Your task to perform on an android device: Toggle the flashlight Image 0: 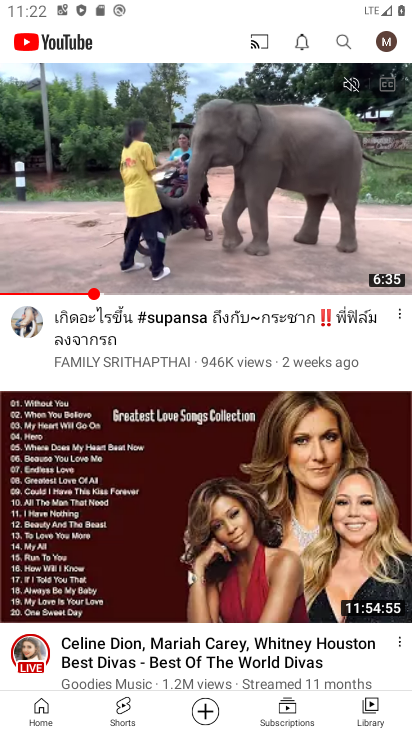
Step 0: press home button
Your task to perform on an android device: Toggle the flashlight Image 1: 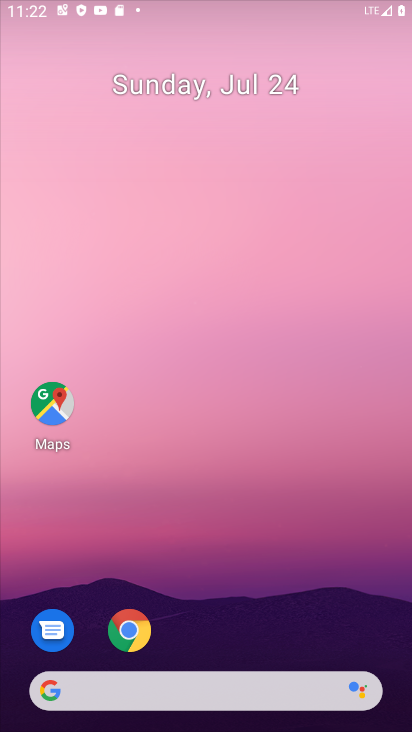
Step 1: drag from (209, 392) to (227, 90)
Your task to perform on an android device: Toggle the flashlight Image 2: 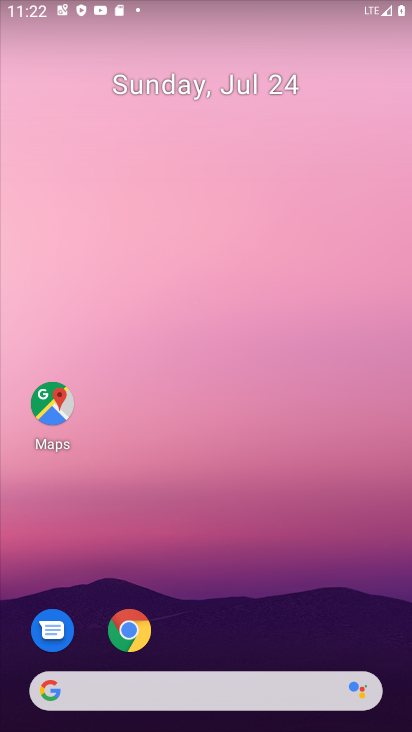
Step 2: drag from (235, 607) to (250, 132)
Your task to perform on an android device: Toggle the flashlight Image 3: 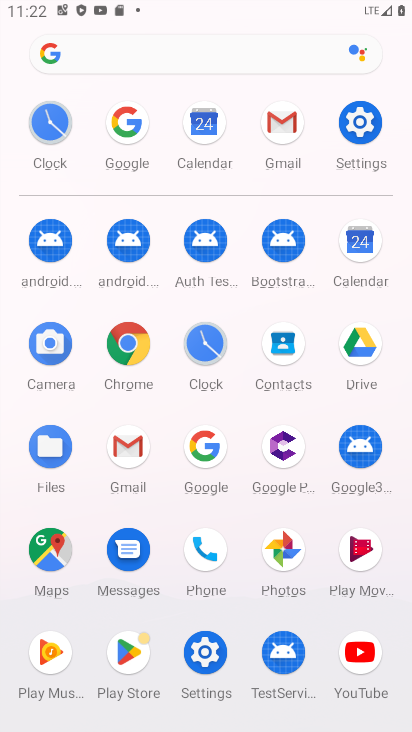
Step 3: click (364, 132)
Your task to perform on an android device: Toggle the flashlight Image 4: 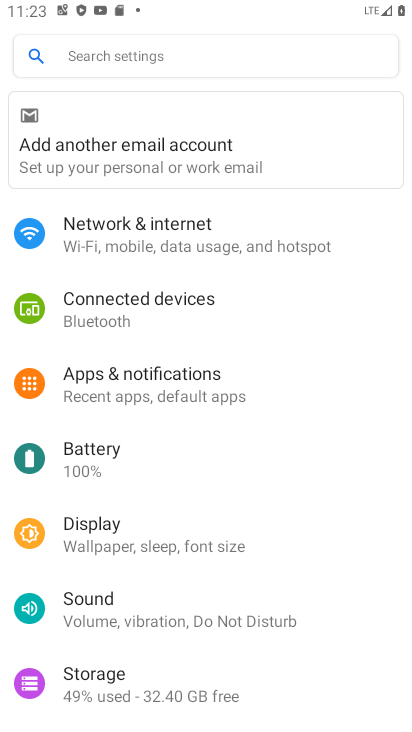
Step 4: task complete